Your task to perform on an android device: toggle sleep mode Image 0: 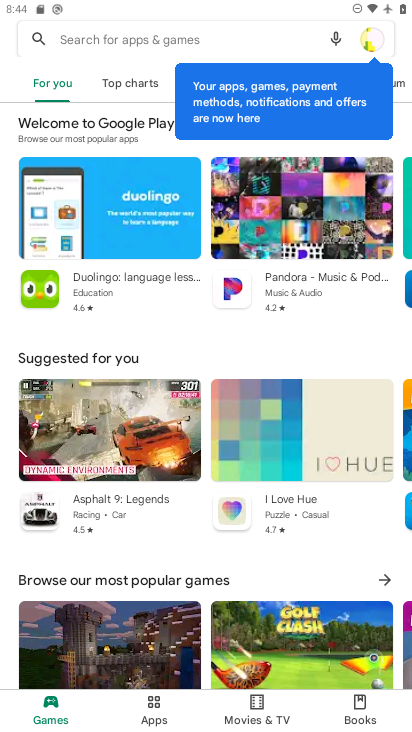
Step 0: press home button
Your task to perform on an android device: toggle sleep mode Image 1: 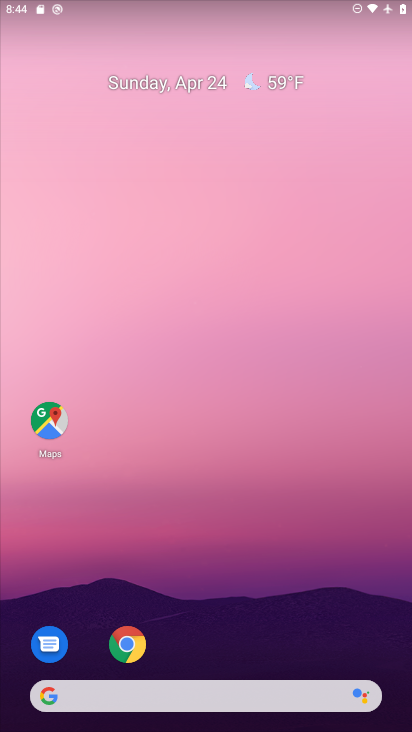
Step 1: drag from (188, 609) to (221, 84)
Your task to perform on an android device: toggle sleep mode Image 2: 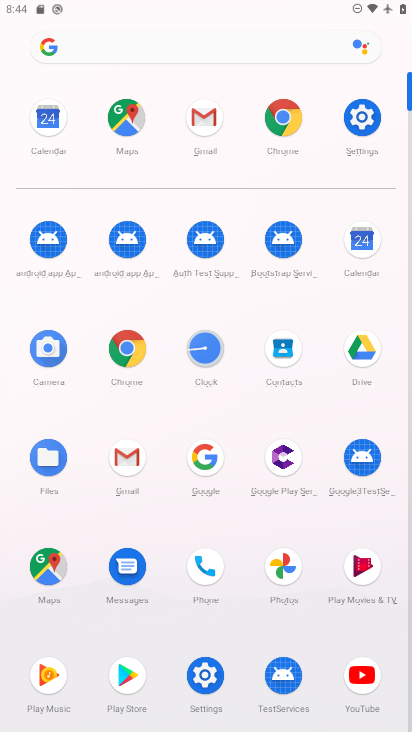
Step 2: click (361, 113)
Your task to perform on an android device: toggle sleep mode Image 3: 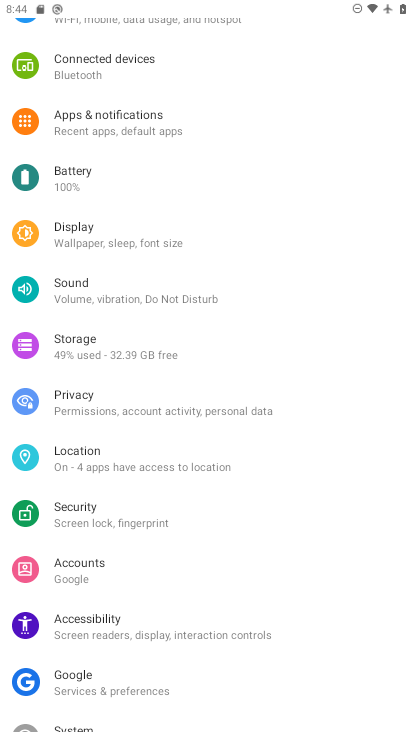
Step 3: click (96, 237)
Your task to perform on an android device: toggle sleep mode Image 4: 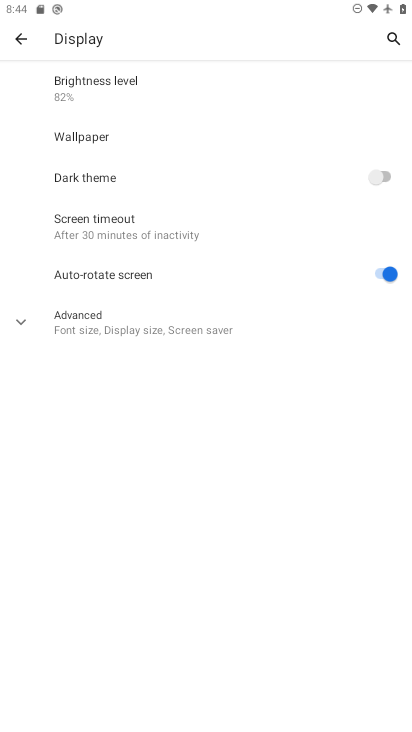
Step 4: click (39, 322)
Your task to perform on an android device: toggle sleep mode Image 5: 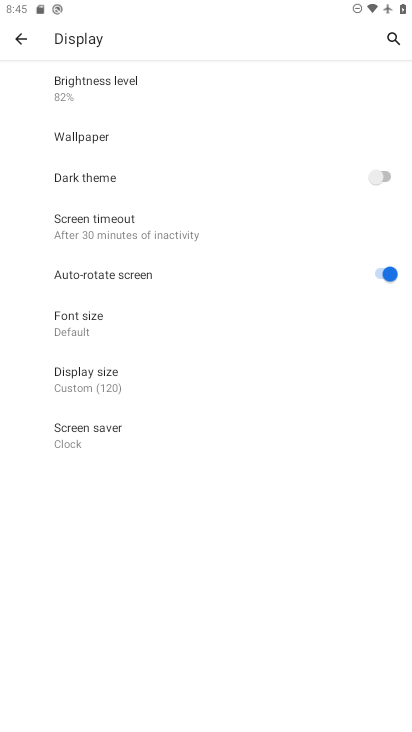
Step 5: task complete